Your task to perform on an android device: Go to internet settings Image 0: 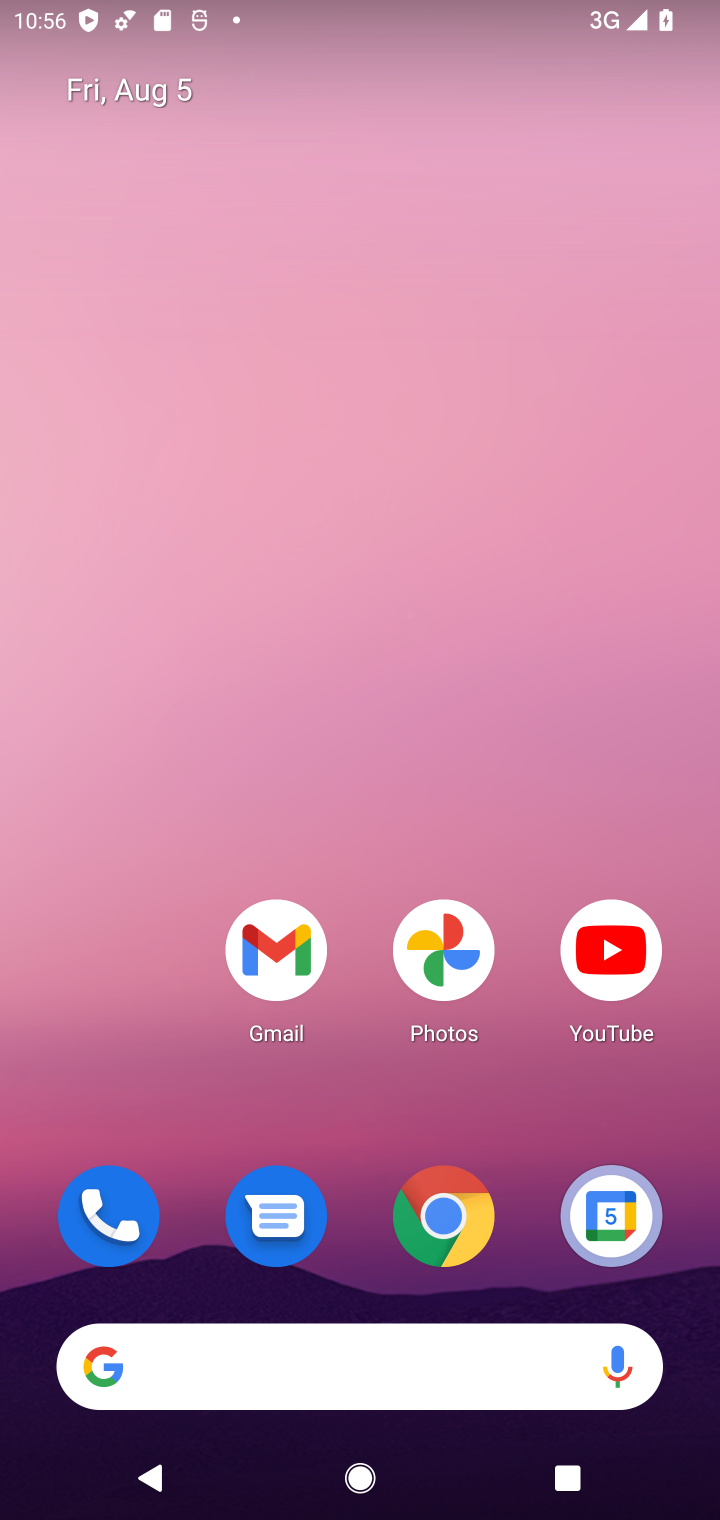
Step 0: drag from (238, 1366) to (400, 47)
Your task to perform on an android device: Go to internet settings Image 1: 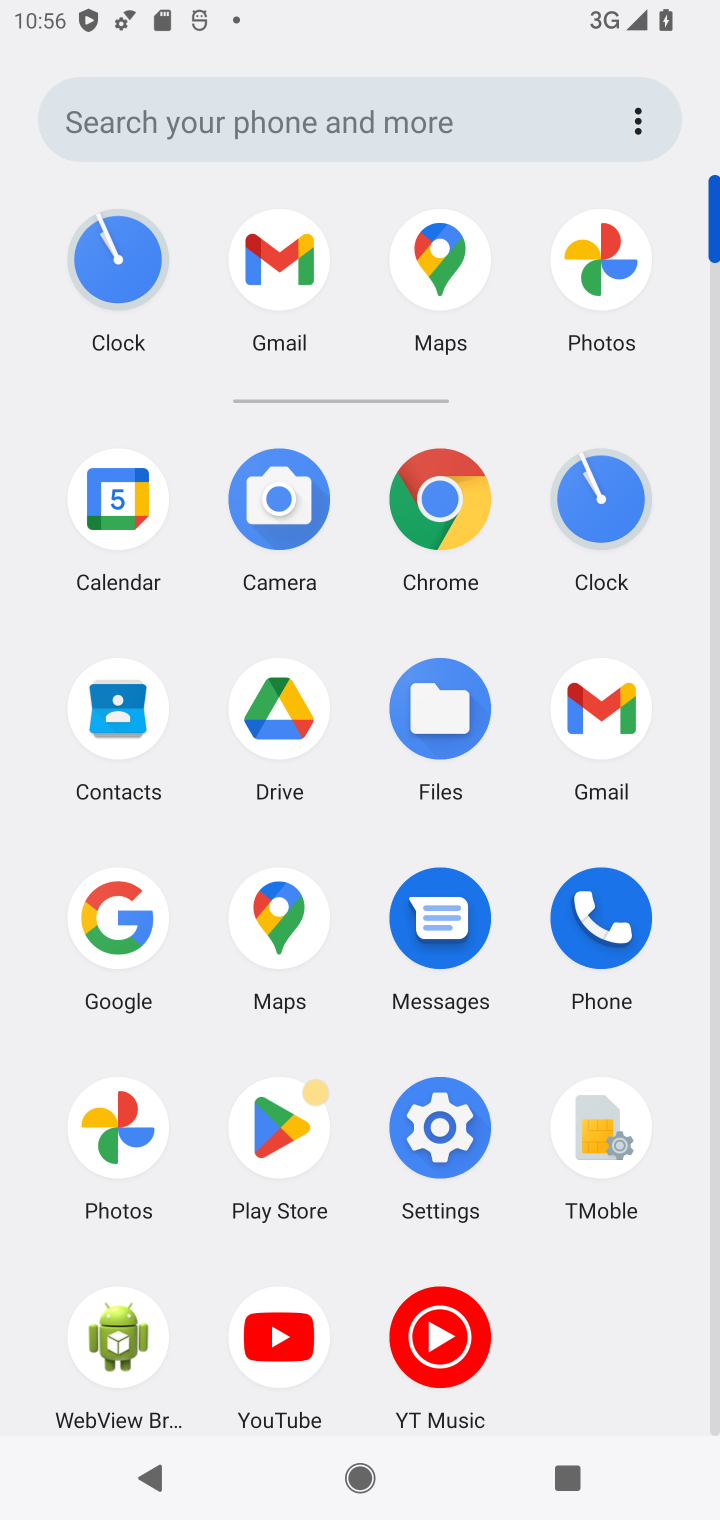
Step 1: click (440, 1118)
Your task to perform on an android device: Go to internet settings Image 2: 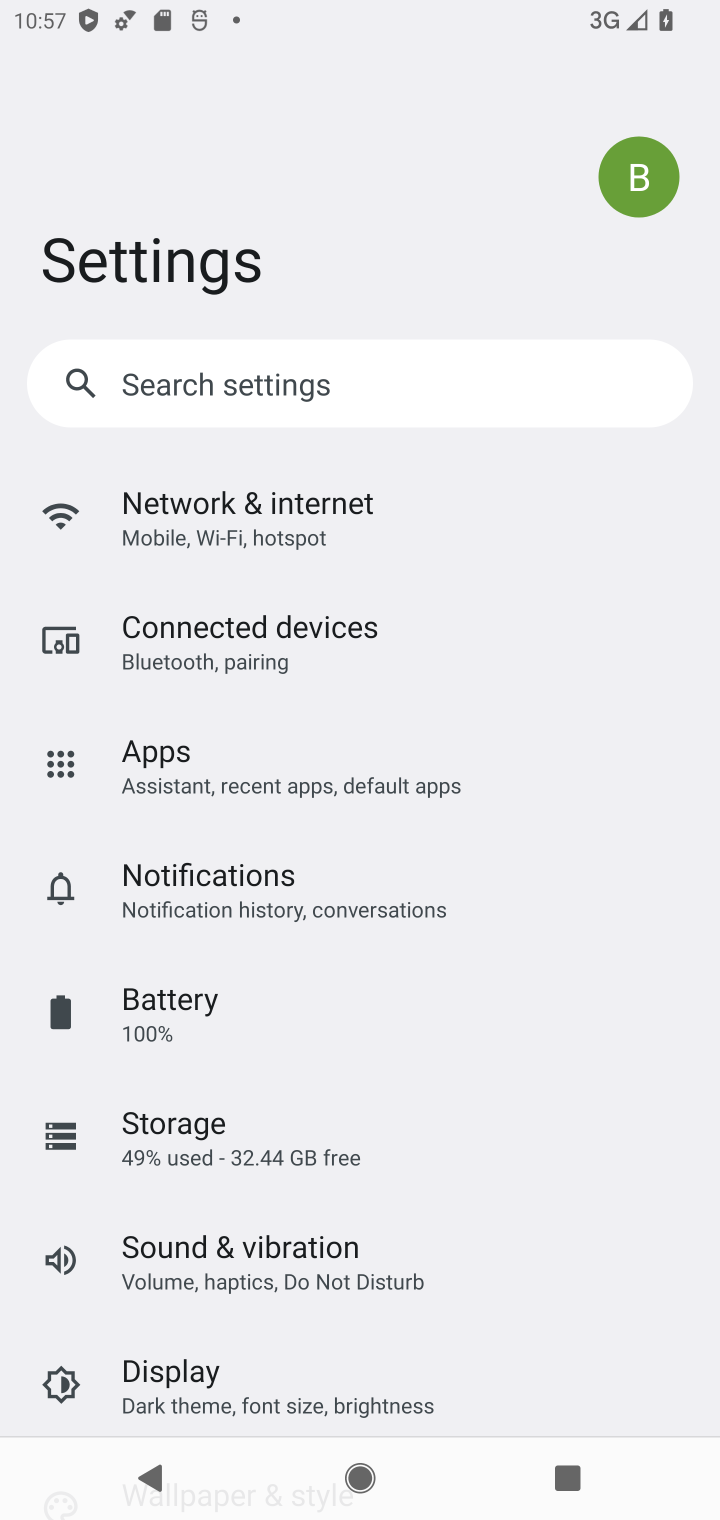
Step 2: click (259, 547)
Your task to perform on an android device: Go to internet settings Image 3: 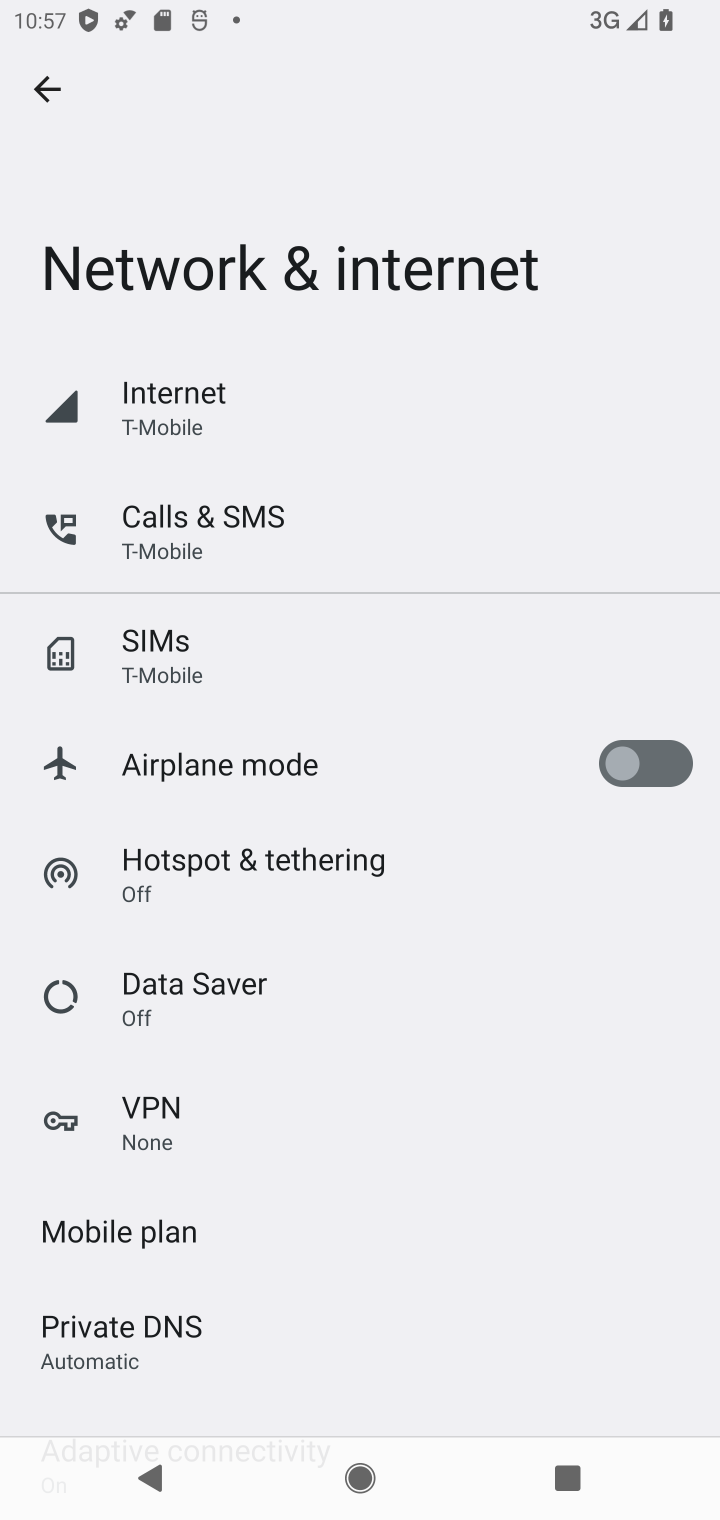
Step 3: task complete